Your task to perform on an android device: Open the map Image 0: 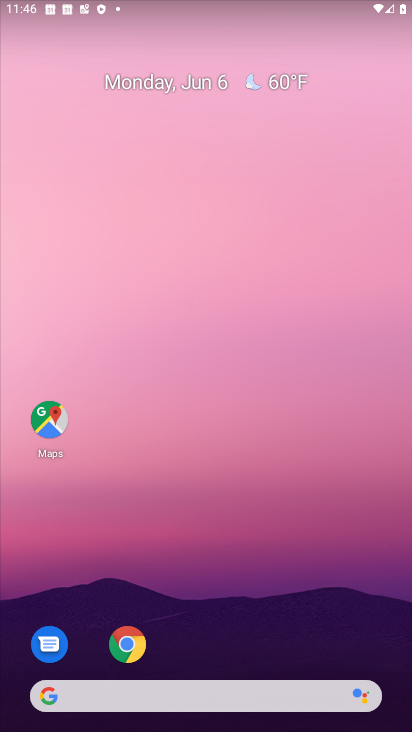
Step 0: drag from (215, 672) to (301, 141)
Your task to perform on an android device: Open the map Image 1: 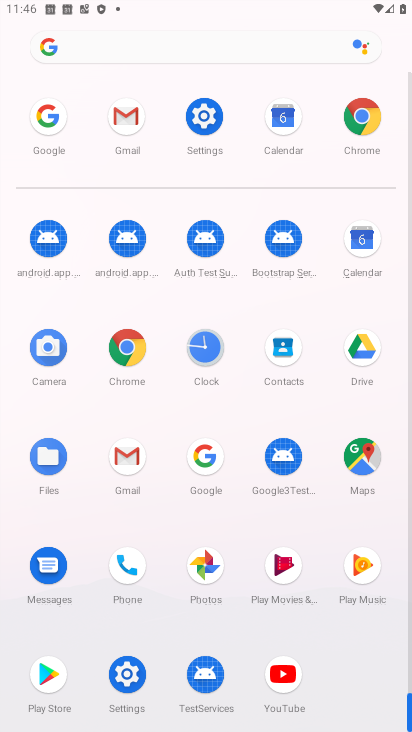
Step 1: click (367, 469)
Your task to perform on an android device: Open the map Image 2: 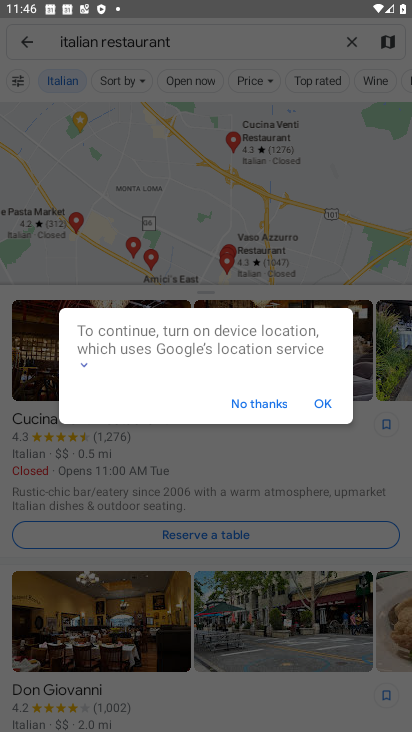
Step 2: click (332, 408)
Your task to perform on an android device: Open the map Image 3: 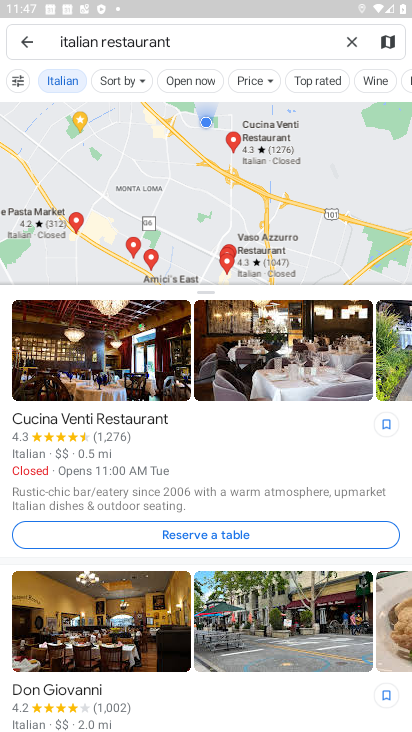
Step 3: task complete